Your task to perform on an android device: star an email in the gmail app Image 0: 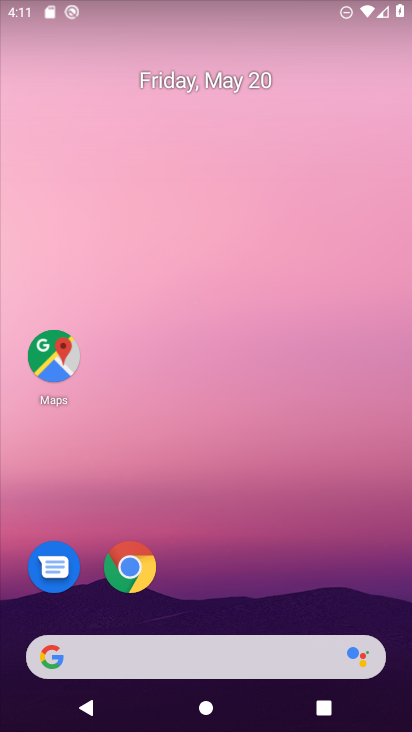
Step 0: drag from (184, 708) to (201, 22)
Your task to perform on an android device: star an email in the gmail app Image 1: 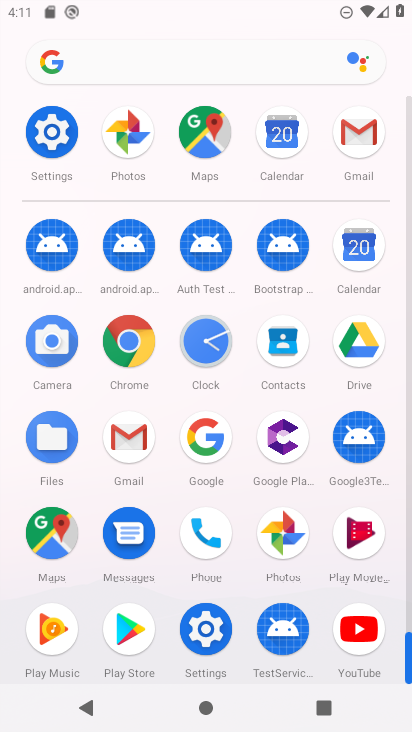
Step 1: click (137, 435)
Your task to perform on an android device: star an email in the gmail app Image 2: 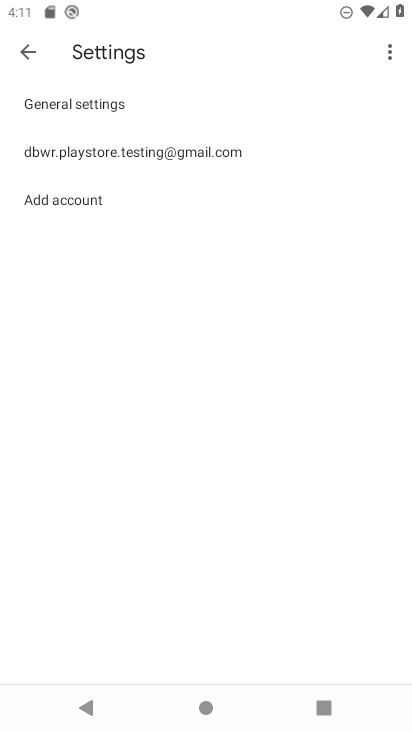
Step 2: click (24, 52)
Your task to perform on an android device: star an email in the gmail app Image 3: 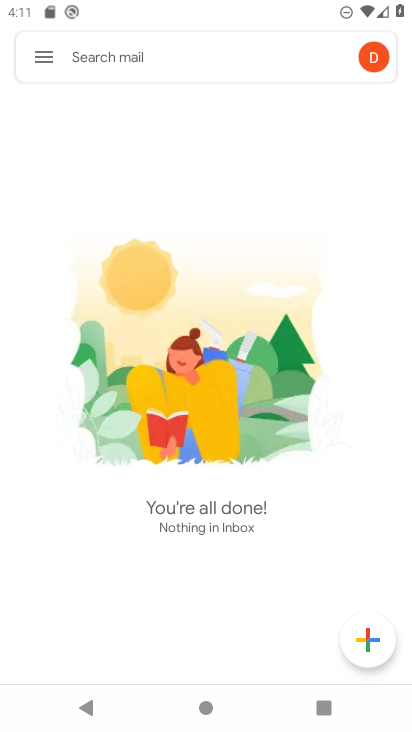
Step 3: click (39, 56)
Your task to perform on an android device: star an email in the gmail app Image 4: 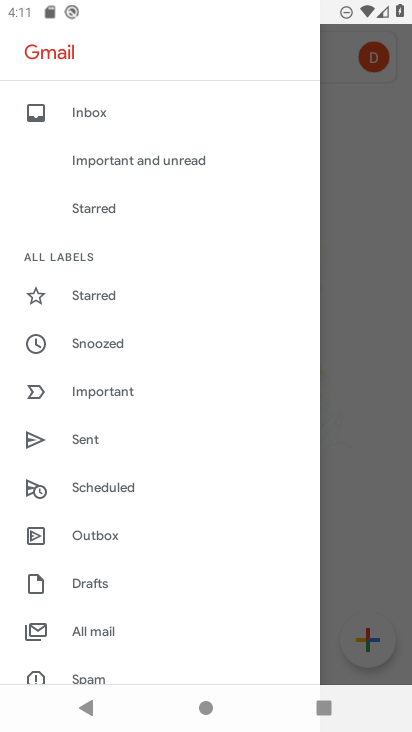
Step 4: drag from (118, 621) to (131, 347)
Your task to perform on an android device: star an email in the gmail app Image 5: 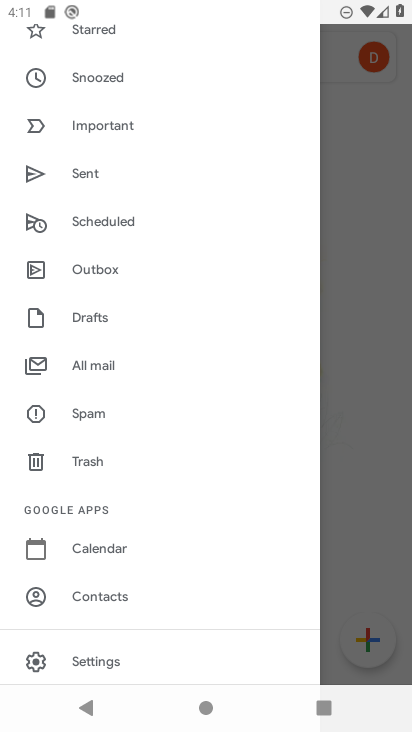
Step 5: drag from (208, 127) to (209, 430)
Your task to perform on an android device: star an email in the gmail app Image 6: 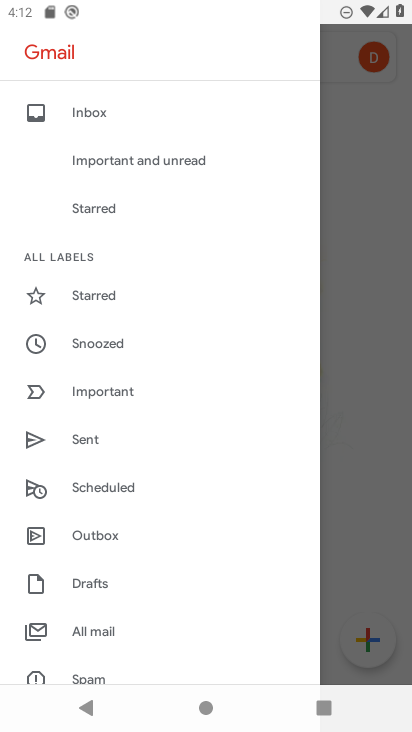
Step 6: click (90, 292)
Your task to perform on an android device: star an email in the gmail app Image 7: 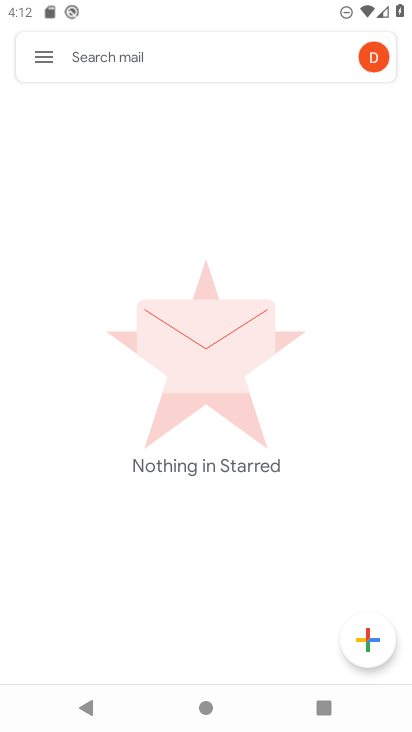
Step 7: click (41, 56)
Your task to perform on an android device: star an email in the gmail app Image 8: 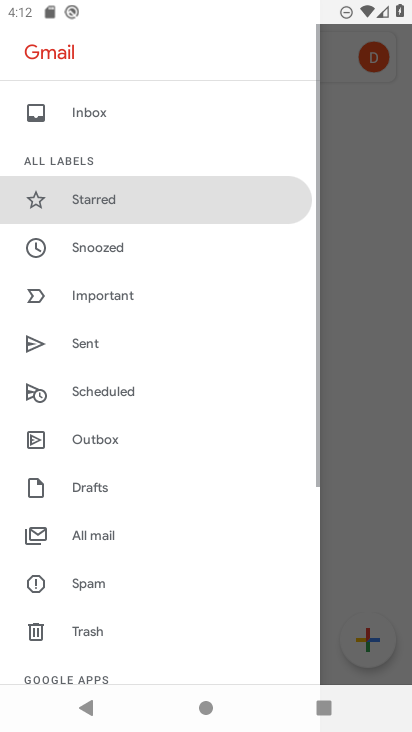
Step 8: drag from (125, 134) to (119, 438)
Your task to perform on an android device: star an email in the gmail app Image 9: 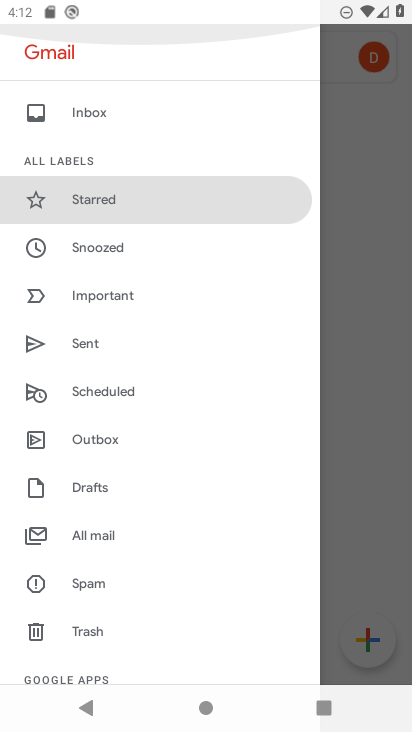
Step 9: click (97, 112)
Your task to perform on an android device: star an email in the gmail app Image 10: 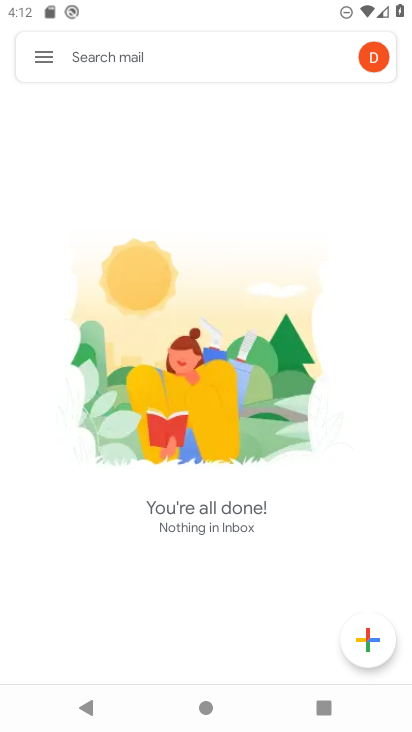
Step 10: task complete